Your task to perform on an android device: check storage Image 0: 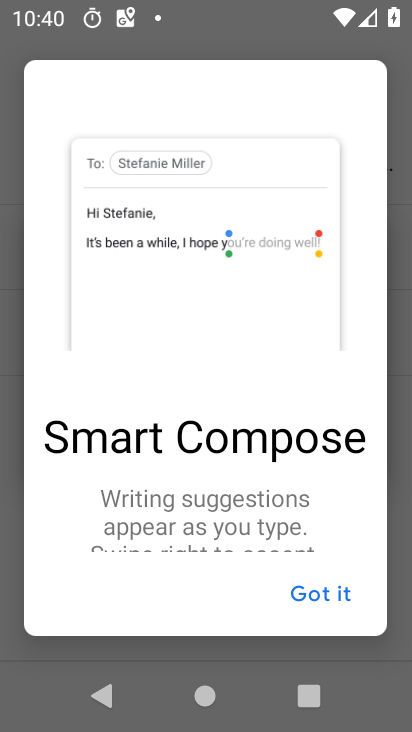
Step 0: press home button
Your task to perform on an android device: check storage Image 1: 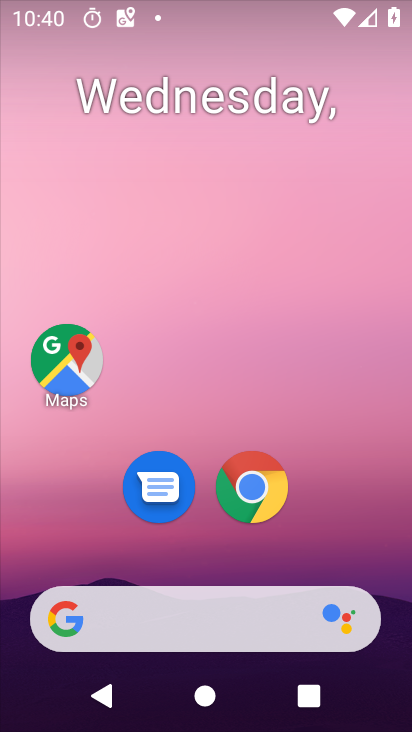
Step 1: drag from (217, 596) to (352, 0)
Your task to perform on an android device: check storage Image 2: 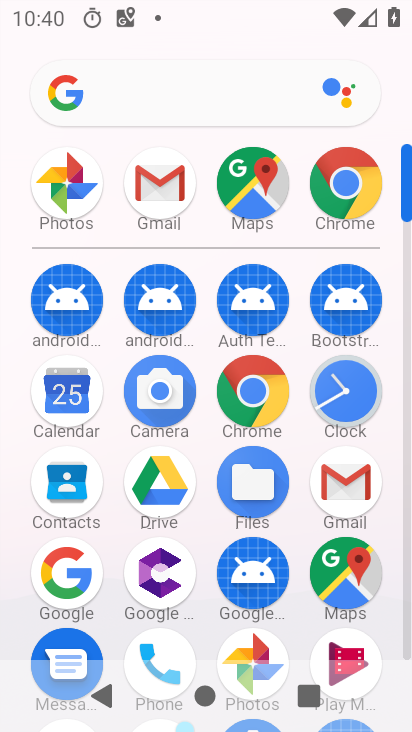
Step 2: drag from (318, 546) to (320, 153)
Your task to perform on an android device: check storage Image 3: 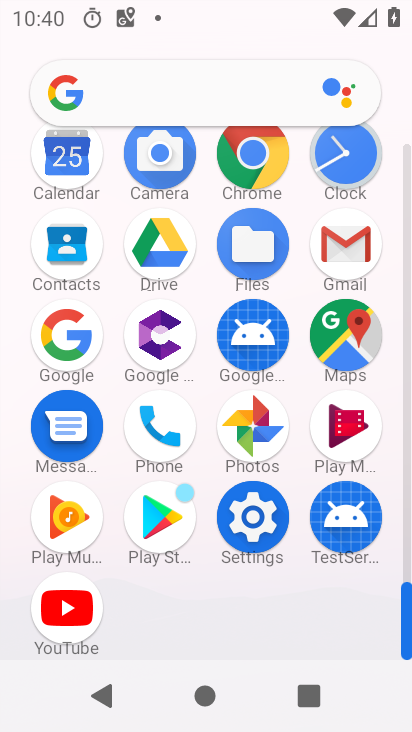
Step 3: click (250, 528)
Your task to perform on an android device: check storage Image 4: 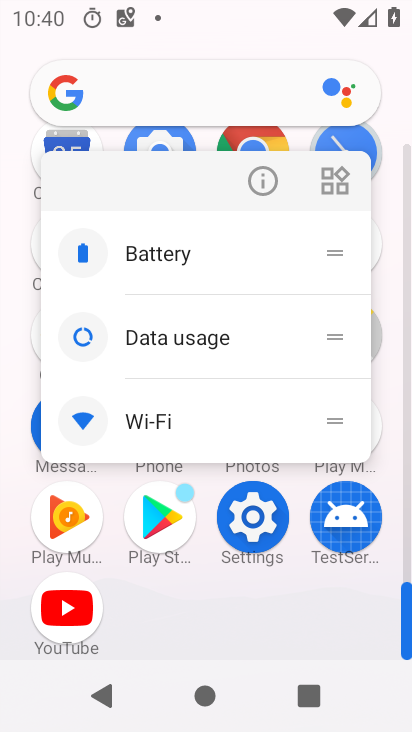
Step 4: click (250, 528)
Your task to perform on an android device: check storage Image 5: 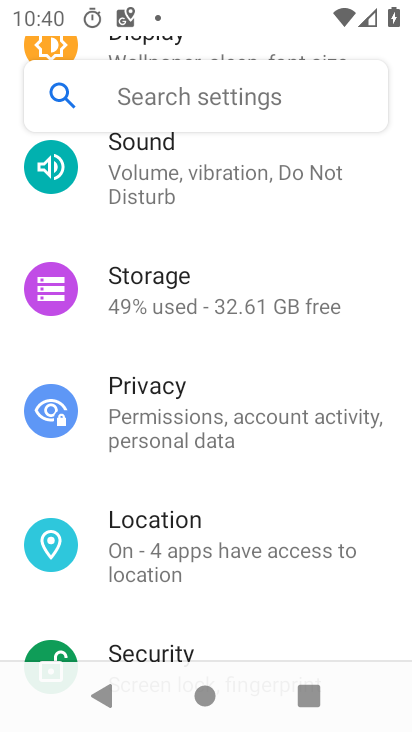
Step 5: click (225, 287)
Your task to perform on an android device: check storage Image 6: 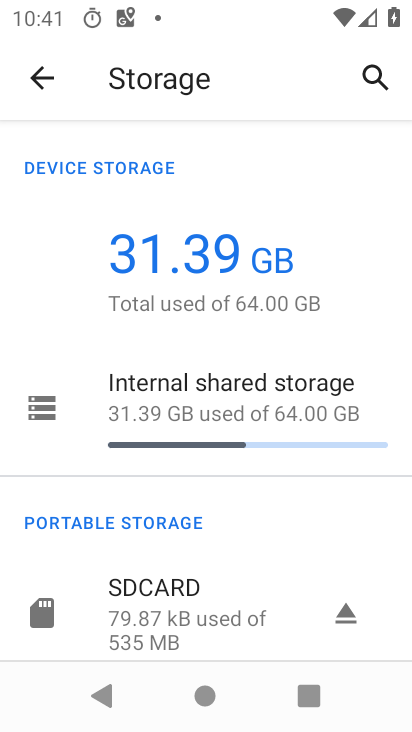
Step 6: task complete